Your task to perform on an android device: Open Amazon Image 0: 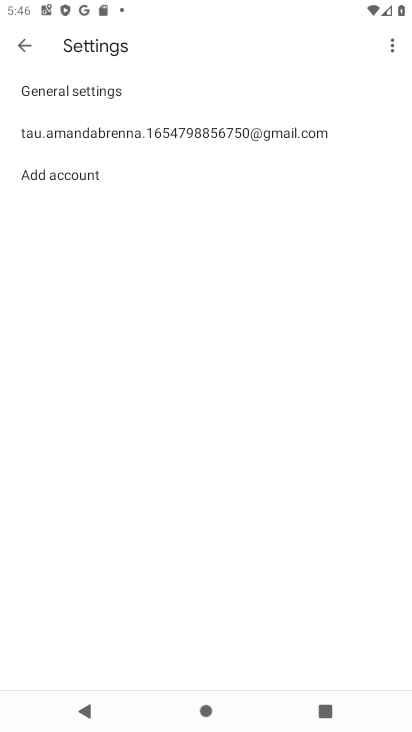
Step 0: press home button
Your task to perform on an android device: Open Amazon Image 1: 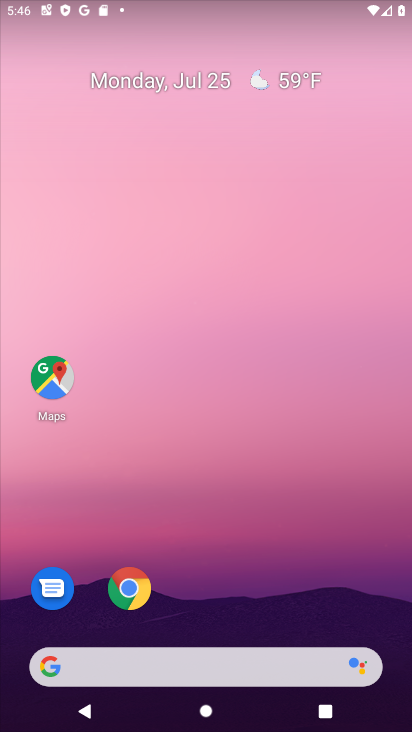
Step 1: click (134, 597)
Your task to perform on an android device: Open Amazon Image 2: 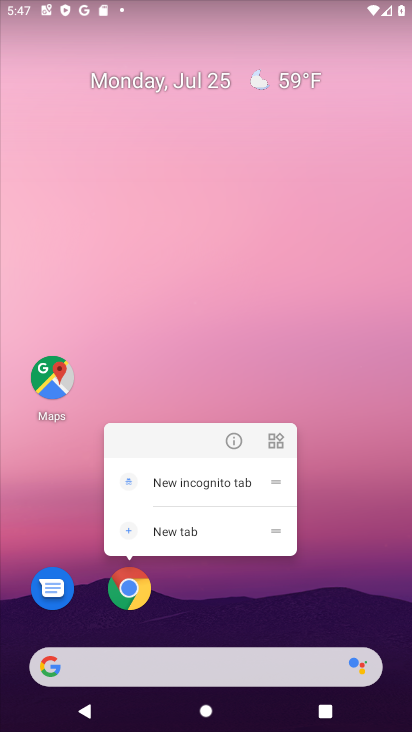
Step 2: click (133, 598)
Your task to perform on an android device: Open Amazon Image 3: 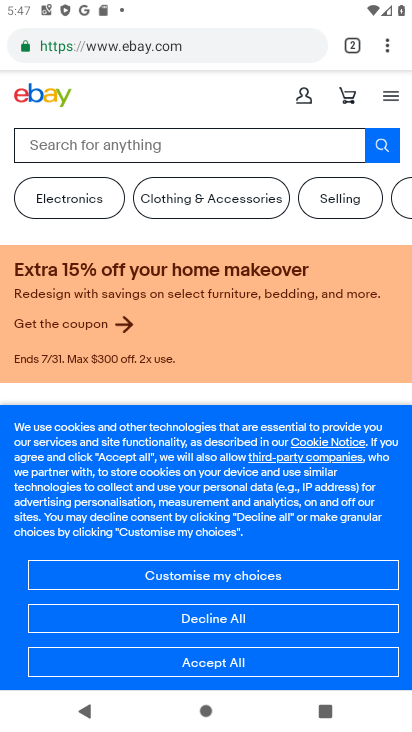
Step 3: click (357, 43)
Your task to perform on an android device: Open Amazon Image 4: 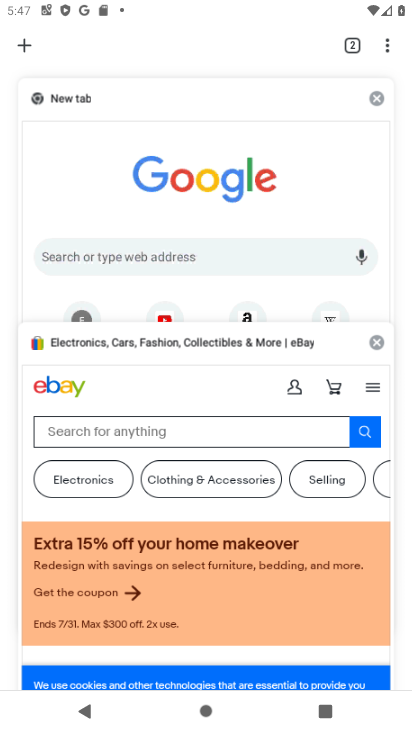
Step 4: click (23, 45)
Your task to perform on an android device: Open Amazon Image 5: 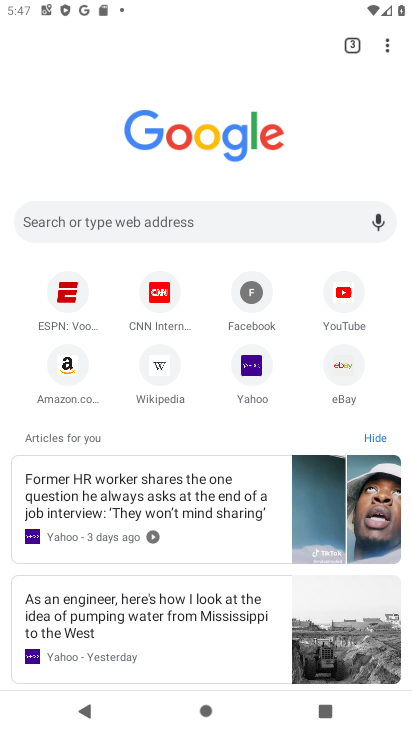
Step 5: click (64, 364)
Your task to perform on an android device: Open Amazon Image 6: 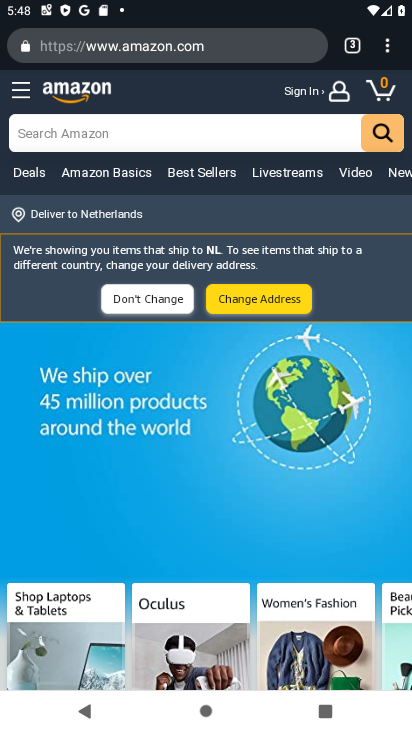
Step 6: task complete